Your task to perform on an android device: turn notification dots off Image 0: 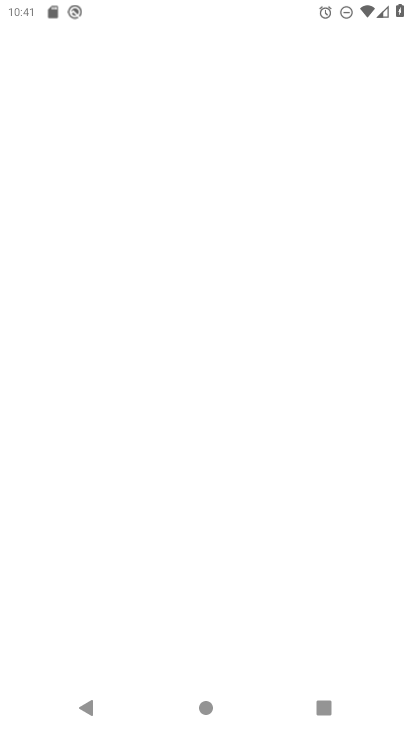
Step 0: press home button
Your task to perform on an android device: turn notification dots off Image 1: 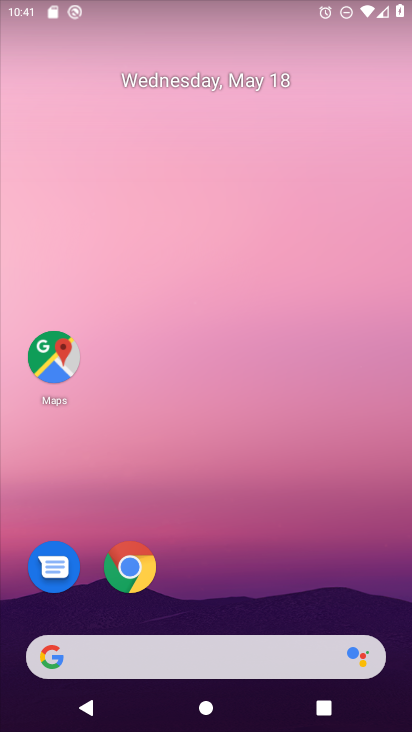
Step 1: drag from (146, 679) to (290, 131)
Your task to perform on an android device: turn notification dots off Image 2: 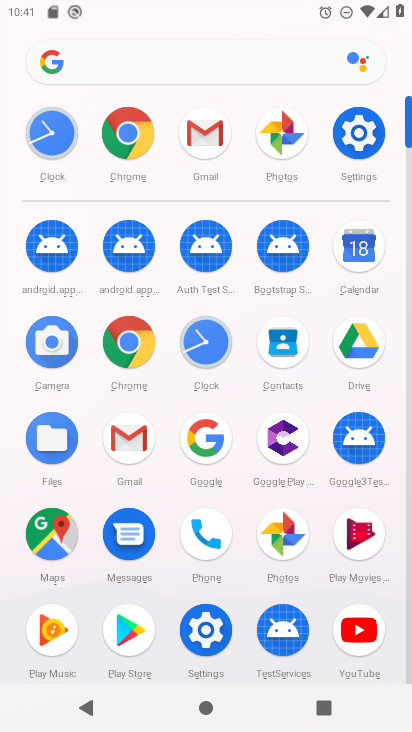
Step 2: click (352, 131)
Your task to perform on an android device: turn notification dots off Image 3: 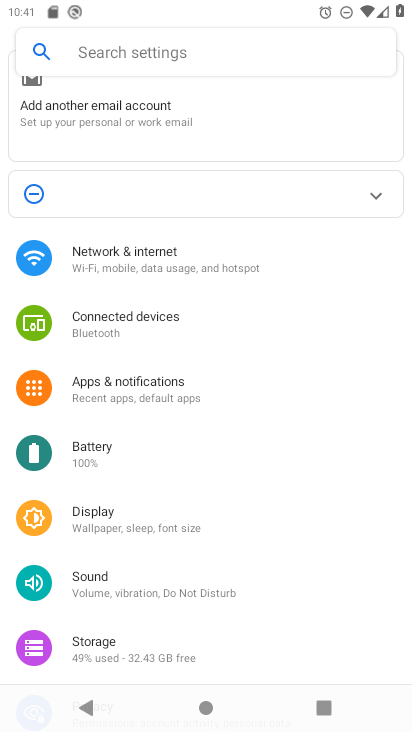
Step 3: click (99, 61)
Your task to perform on an android device: turn notification dots off Image 4: 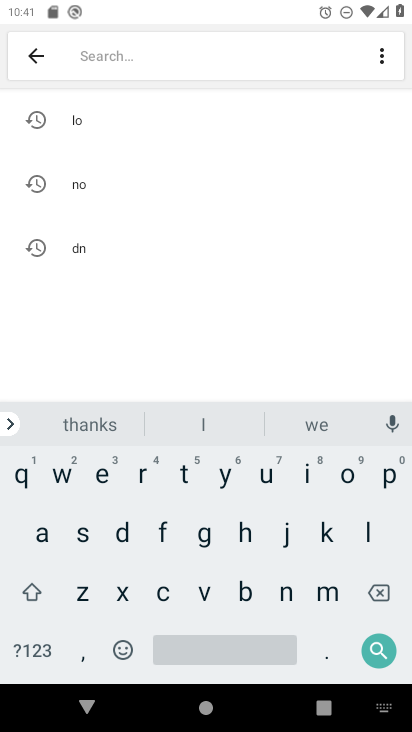
Step 4: click (116, 547)
Your task to perform on an android device: turn notification dots off Image 5: 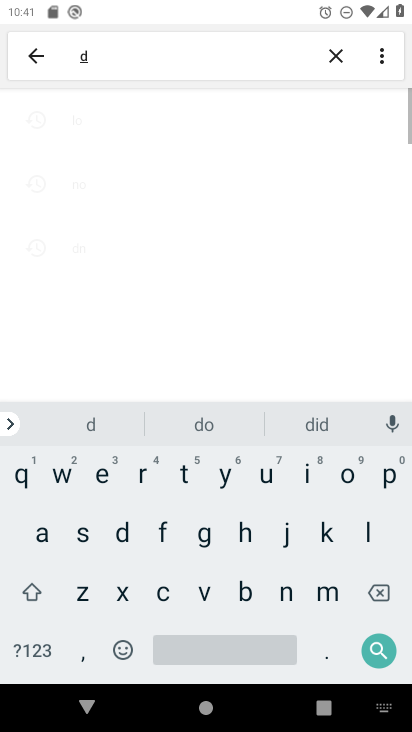
Step 5: click (345, 477)
Your task to perform on an android device: turn notification dots off Image 6: 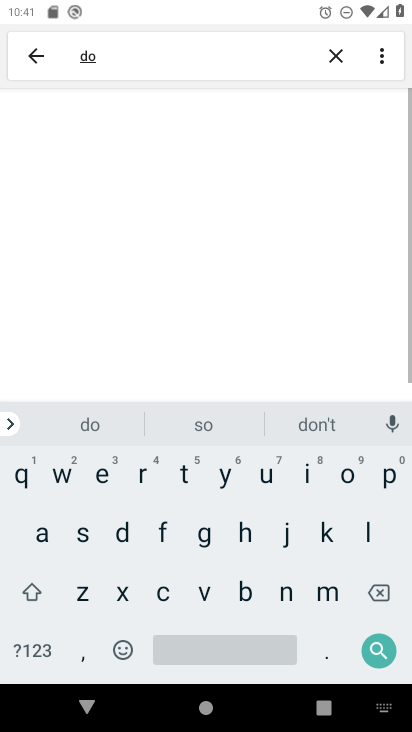
Step 6: click (175, 485)
Your task to perform on an android device: turn notification dots off Image 7: 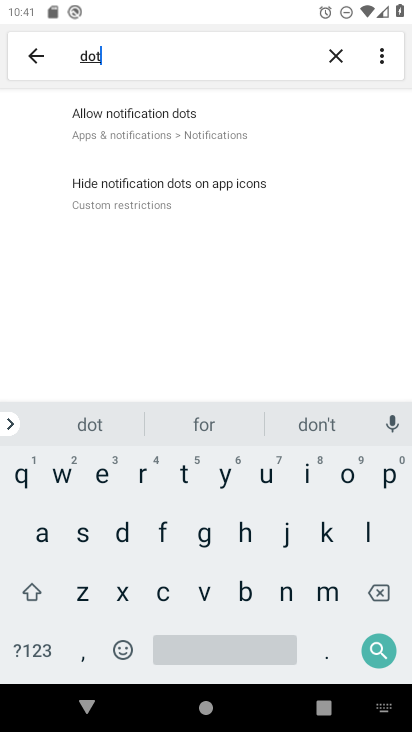
Step 7: click (187, 110)
Your task to perform on an android device: turn notification dots off Image 8: 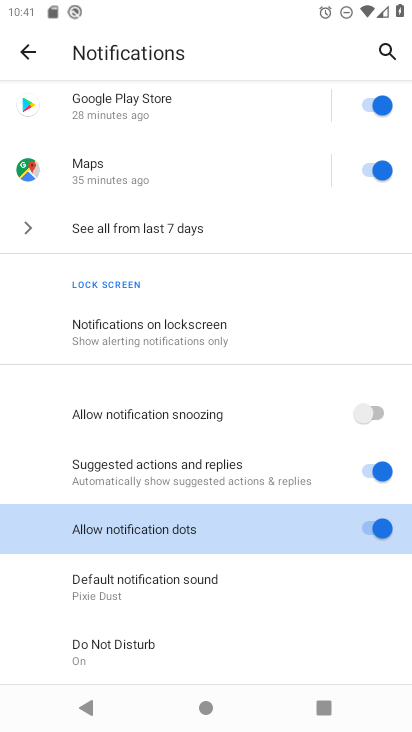
Step 8: click (243, 526)
Your task to perform on an android device: turn notification dots off Image 9: 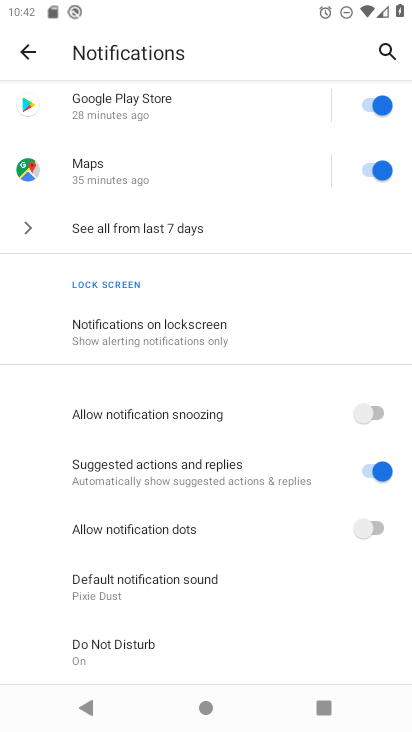
Step 9: task complete